Your task to perform on an android device: Go to Maps Image 0: 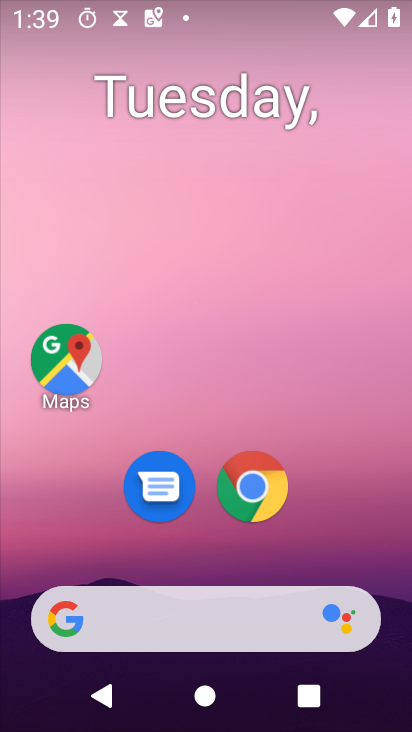
Step 0: click (71, 367)
Your task to perform on an android device: Go to Maps Image 1: 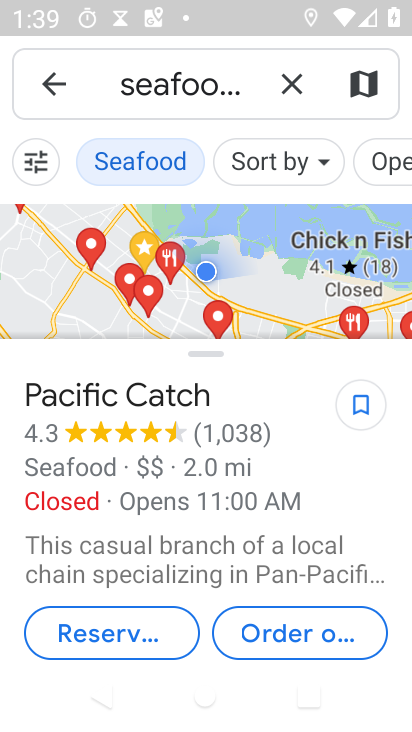
Step 1: task complete